Your task to perform on an android device: read, delete, or share a saved page in the chrome app Image 0: 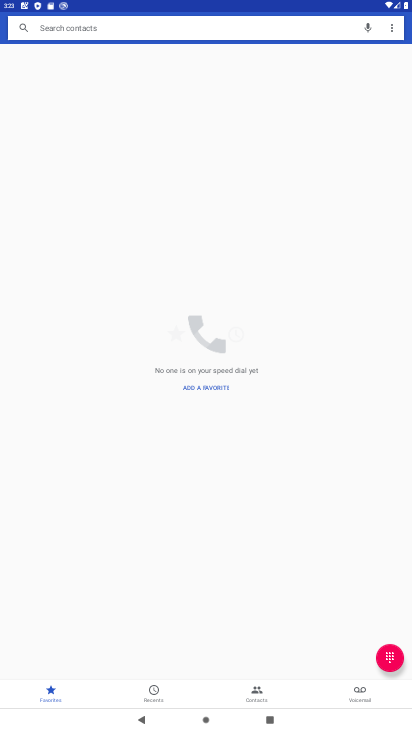
Step 0: press home button
Your task to perform on an android device: read, delete, or share a saved page in the chrome app Image 1: 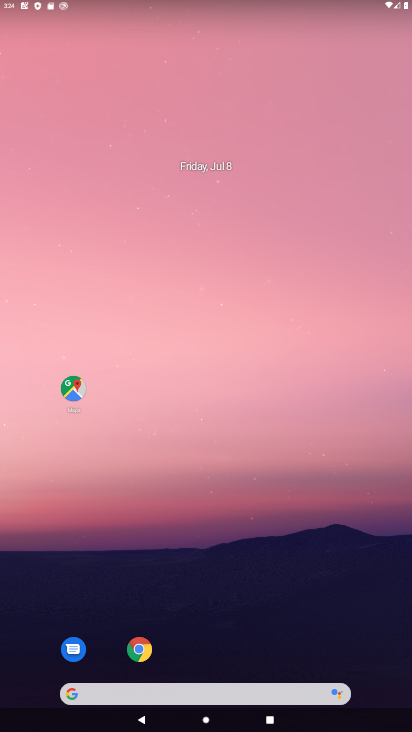
Step 1: drag from (178, 634) to (135, 237)
Your task to perform on an android device: read, delete, or share a saved page in the chrome app Image 2: 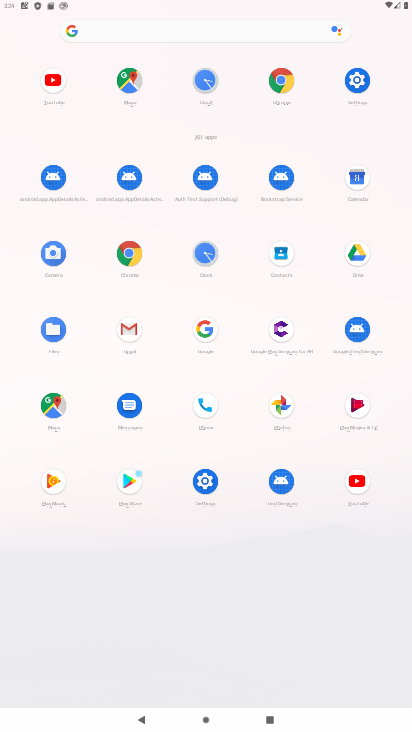
Step 2: click (276, 90)
Your task to perform on an android device: read, delete, or share a saved page in the chrome app Image 3: 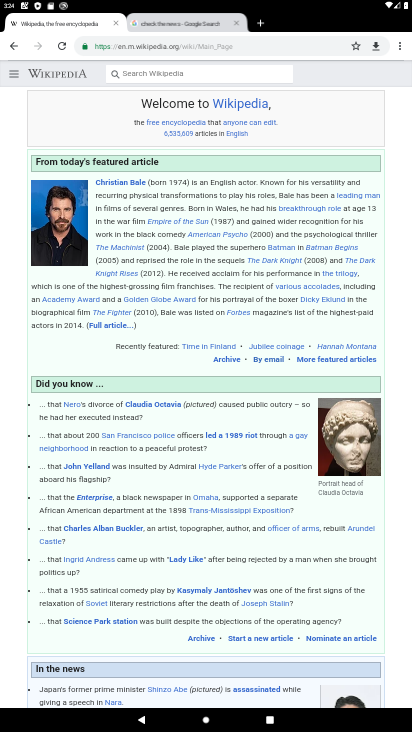
Step 3: click (401, 48)
Your task to perform on an android device: read, delete, or share a saved page in the chrome app Image 4: 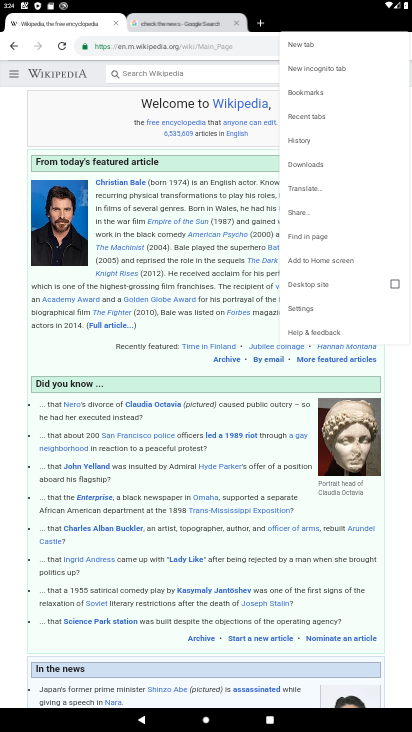
Step 4: click (316, 91)
Your task to perform on an android device: read, delete, or share a saved page in the chrome app Image 5: 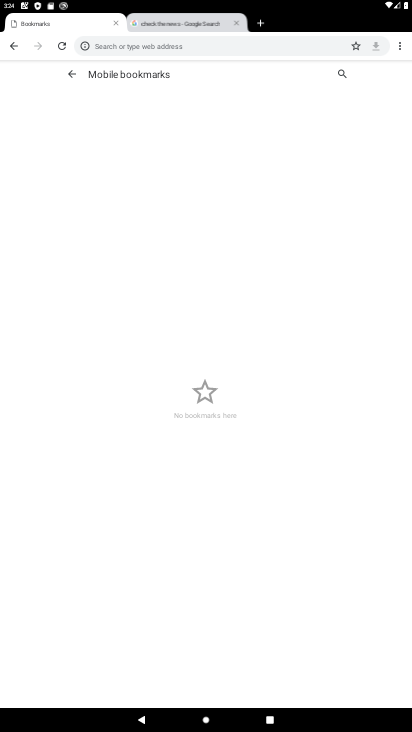
Step 5: task complete